Your task to perform on an android device: turn off javascript in the chrome app Image 0: 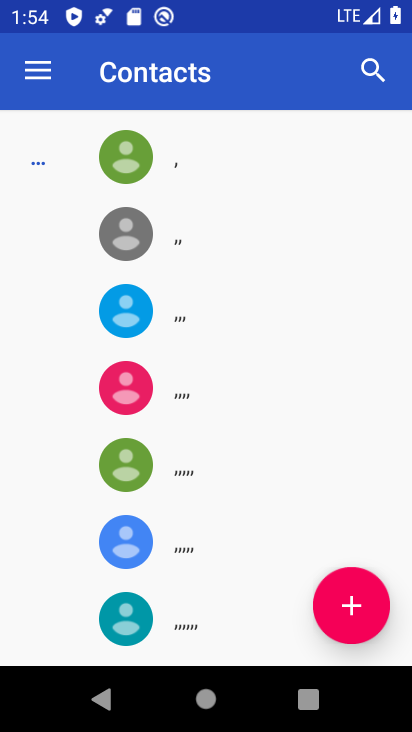
Step 0: press home button
Your task to perform on an android device: turn off javascript in the chrome app Image 1: 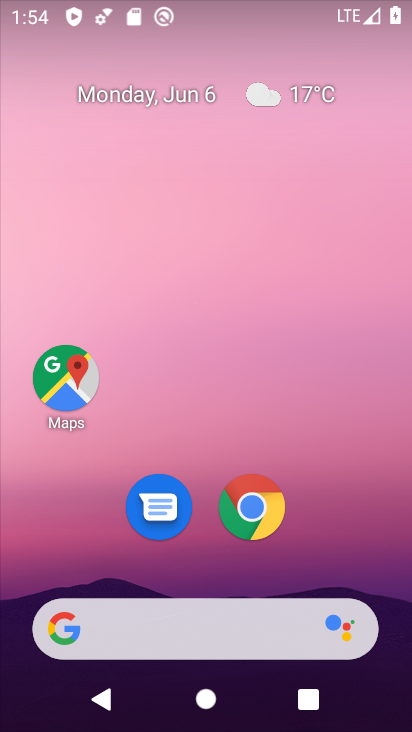
Step 1: click (266, 528)
Your task to perform on an android device: turn off javascript in the chrome app Image 2: 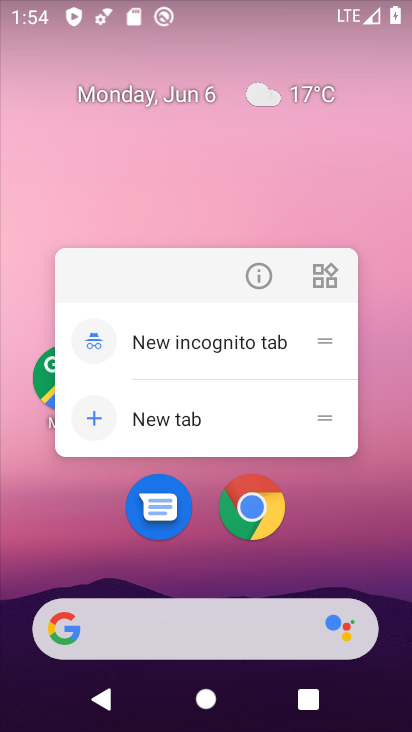
Step 2: click (266, 528)
Your task to perform on an android device: turn off javascript in the chrome app Image 3: 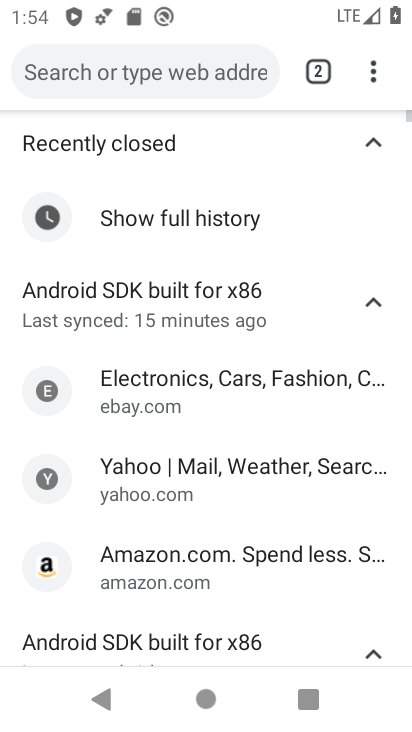
Step 3: click (370, 97)
Your task to perform on an android device: turn off javascript in the chrome app Image 4: 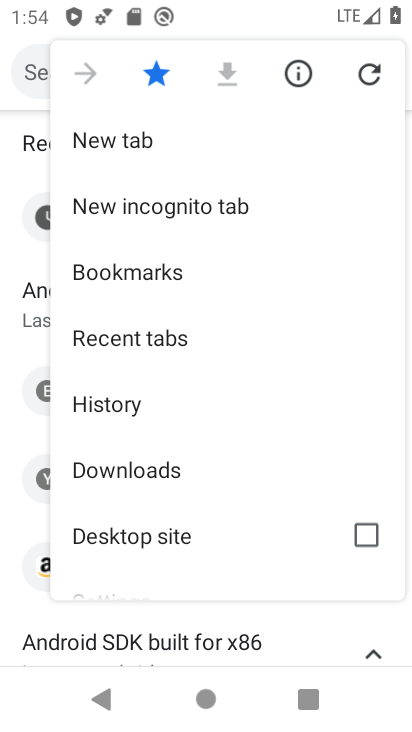
Step 4: drag from (206, 565) to (181, 278)
Your task to perform on an android device: turn off javascript in the chrome app Image 5: 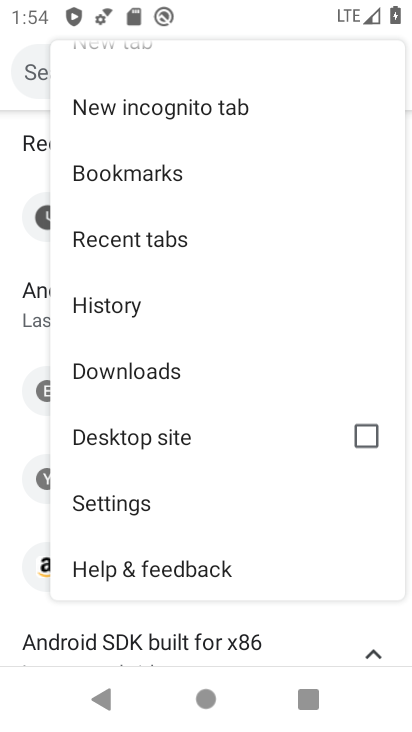
Step 5: click (179, 506)
Your task to perform on an android device: turn off javascript in the chrome app Image 6: 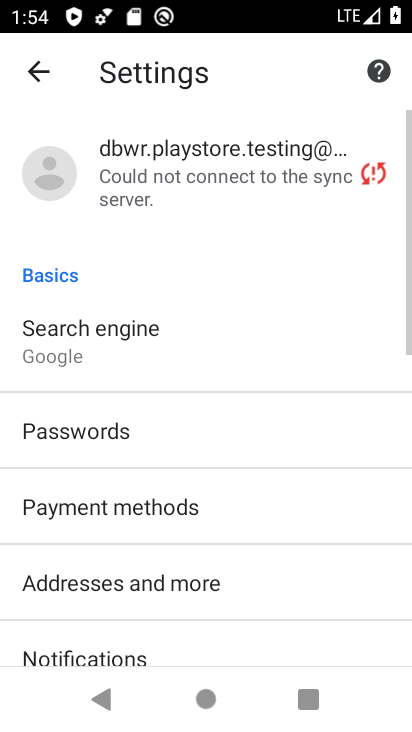
Step 6: drag from (195, 584) to (132, 153)
Your task to perform on an android device: turn off javascript in the chrome app Image 7: 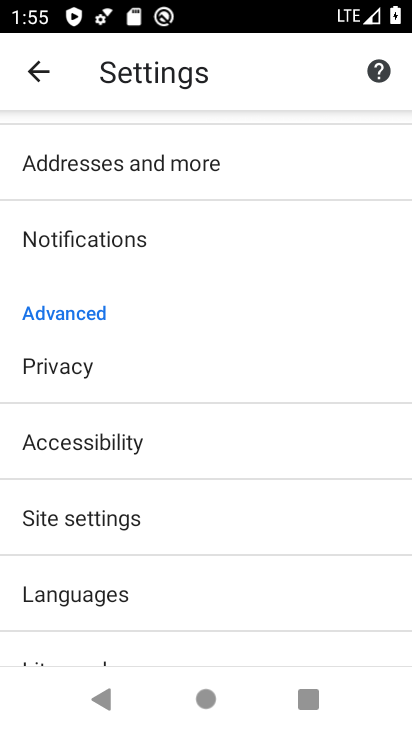
Step 7: drag from (204, 619) to (191, 435)
Your task to perform on an android device: turn off javascript in the chrome app Image 8: 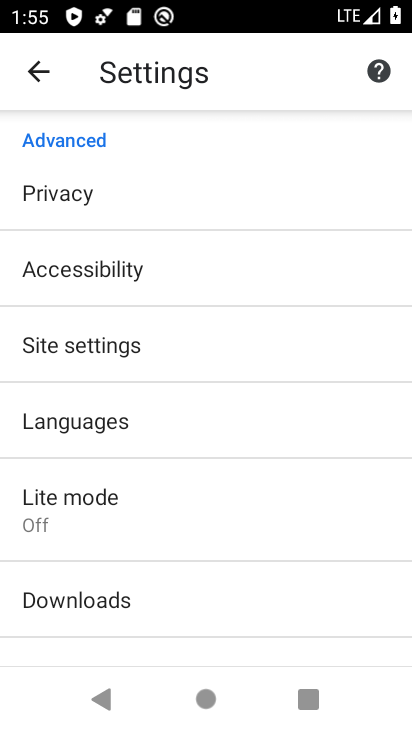
Step 8: click (158, 362)
Your task to perform on an android device: turn off javascript in the chrome app Image 9: 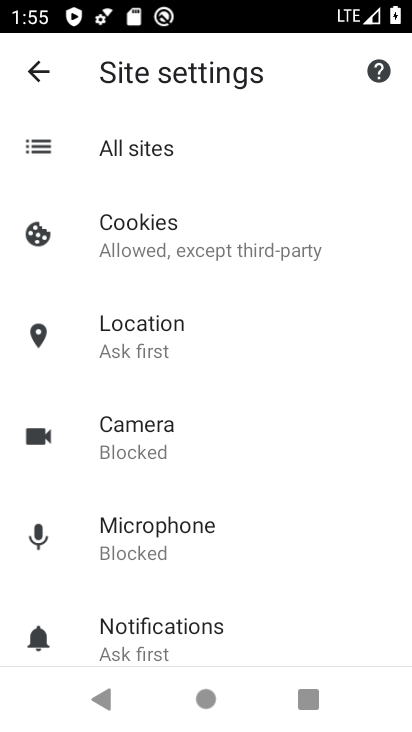
Step 9: drag from (200, 610) to (192, 414)
Your task to perform on an android device: turn off javascript in the chrome app Image 10: 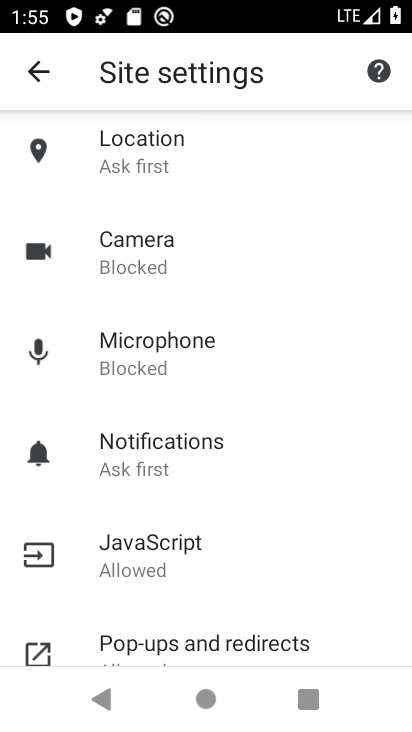
Step 10: click (198, 561)
Your task to perform on an android device: turn off javascript in the chrome app Image 11: 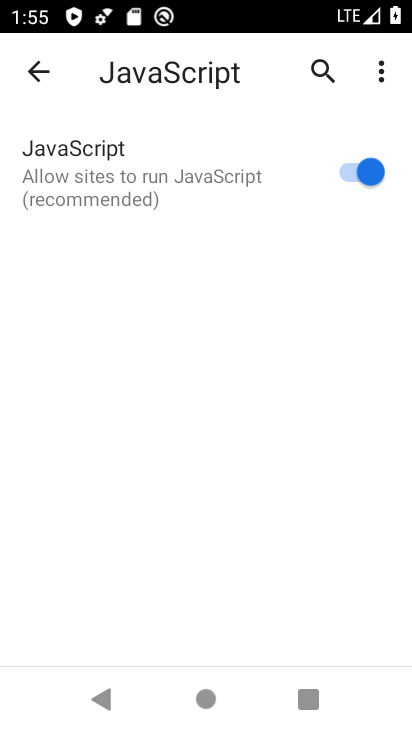
Step 11: click (342, 175)
Your task to perform on an android device: turn off javascript in the chrome app Image 12: 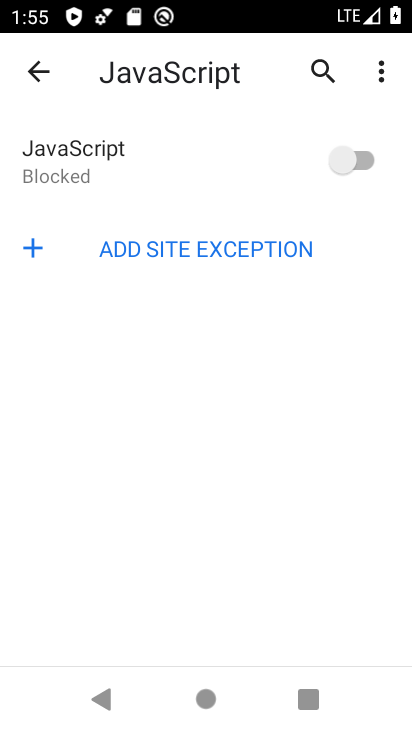
Step 12: task complete